Your task to perform on an android device: Open network settings Image 0: 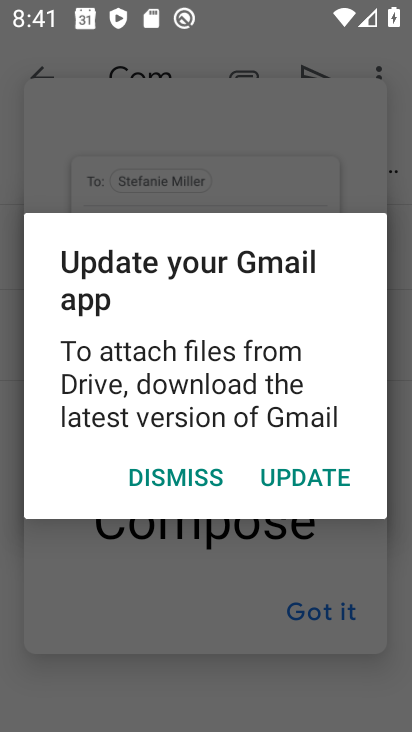
Step 0: press back button
Your task to perform on an android device: Open network settings Image 1: 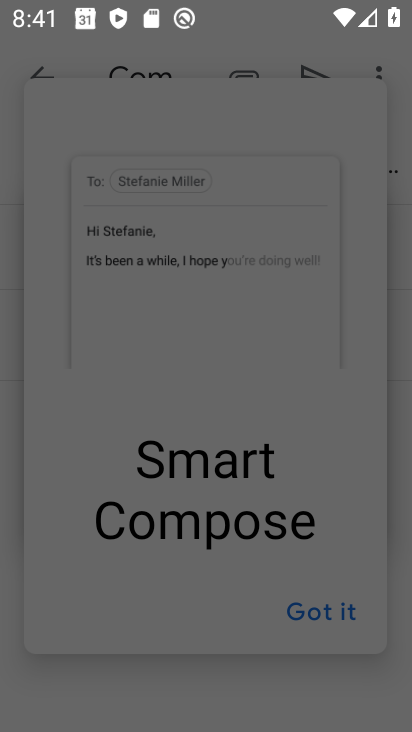
Step 1: press back button
Your task to perform on an android device: Open network settings Image 2: 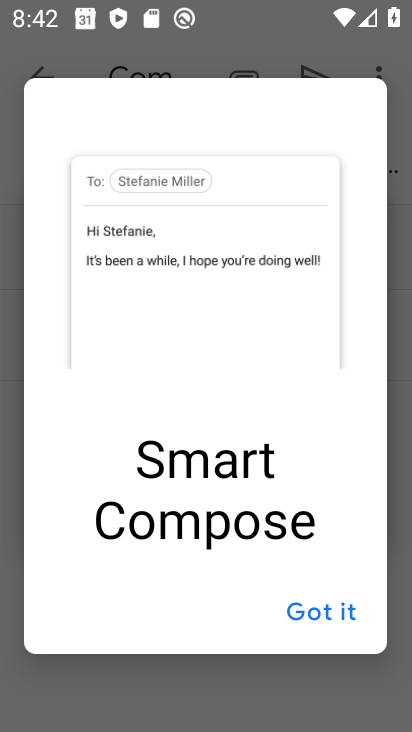
Step 2: press back button
Your task to perform on an android device: Open network settings Image 3: 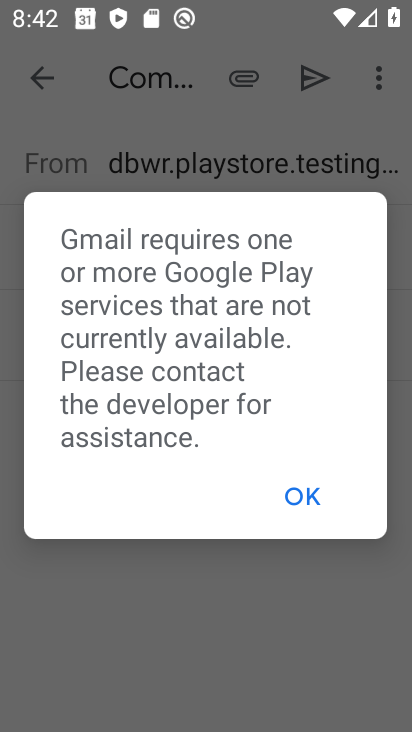
Step 3: press home button
Your task to perform on an android device: Open network settings Image 4: 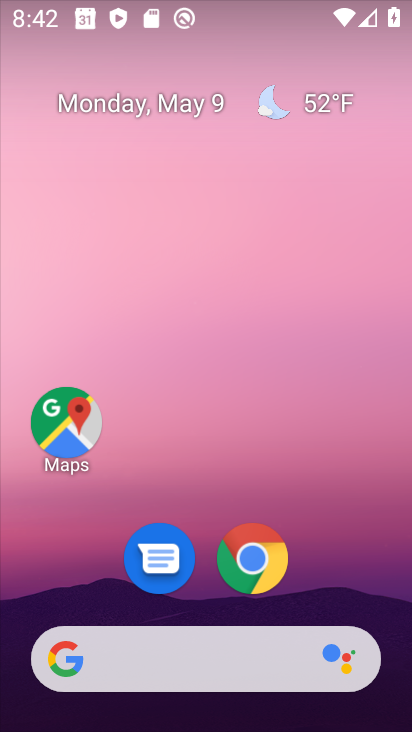
Step 4: drag from (208, 576) to (238, 57)
Your task to perform on an android device: Open network settings Image 5: 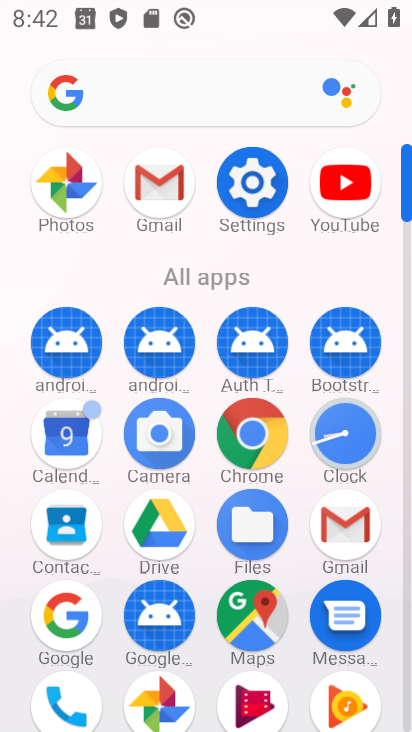
Step 5: click (254, 186)
Your task to perform on an android device: Open network settings Image 6: 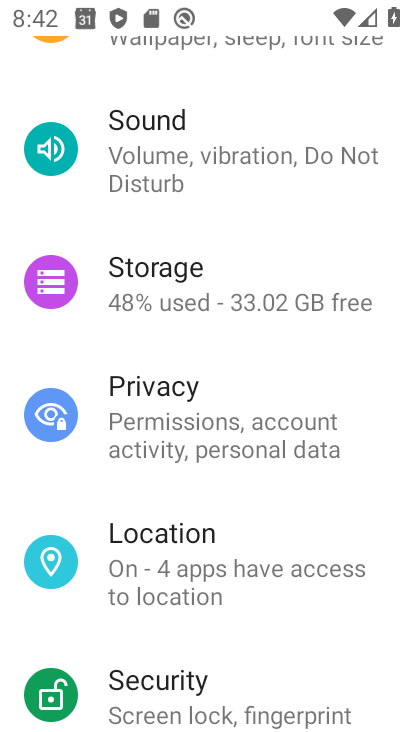
Step 6: drag from (232, 176) to (171, 715)
Your task to perform on an android device: Open network settings Image 7: 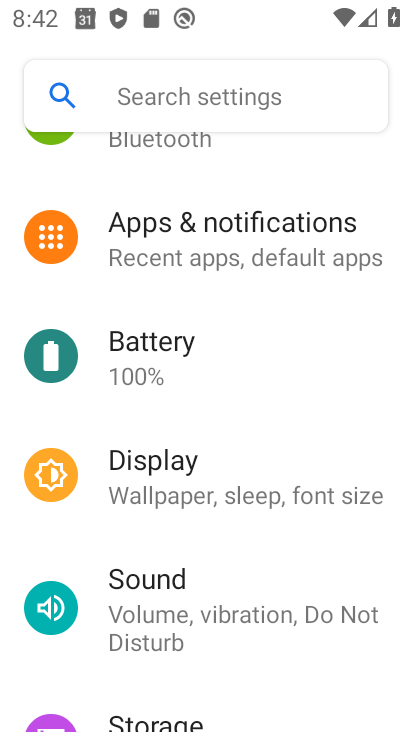
Step 7: drag from (219, 241) to (184, 594)
Your task to perform on an android device: Open network settings Image 8: 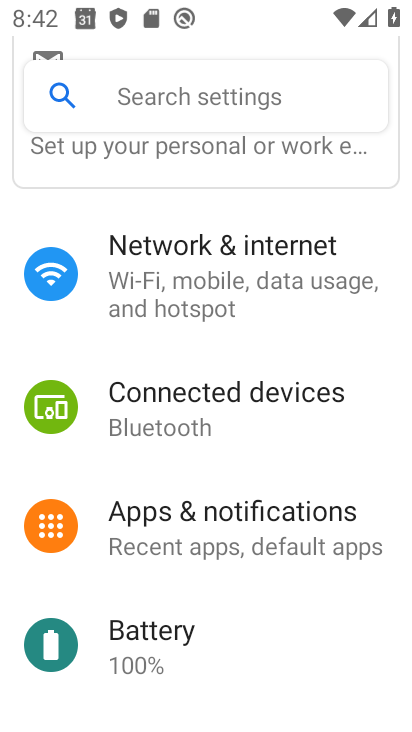
Step 8: click (204, 253)
Your task to perform on an android device: Open network settings Image 9: 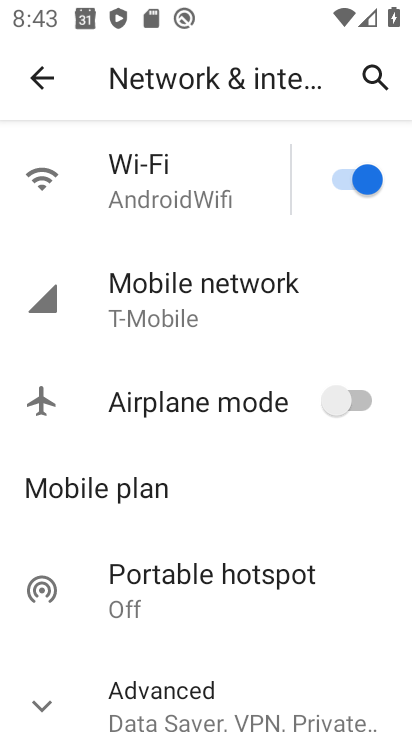
Step 9: task complete